Your task to perform on an android device: toggle priority inbox in the gmail app Image 0: 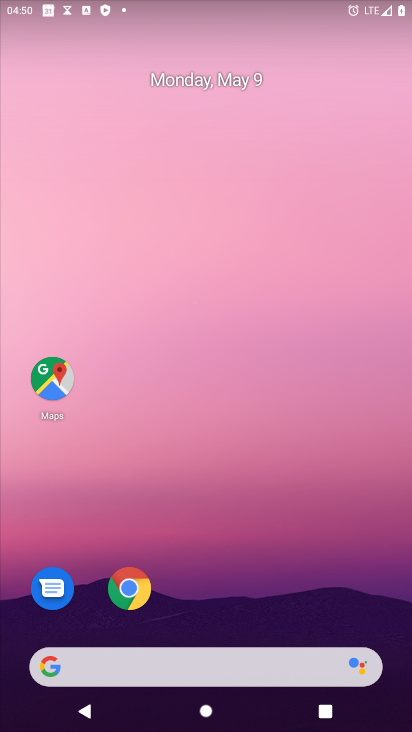
Step 0: drag from (255, 505) to (230, 142)
Your task to perform on an android device: toggle priority inbox in the gmail app Image 1: 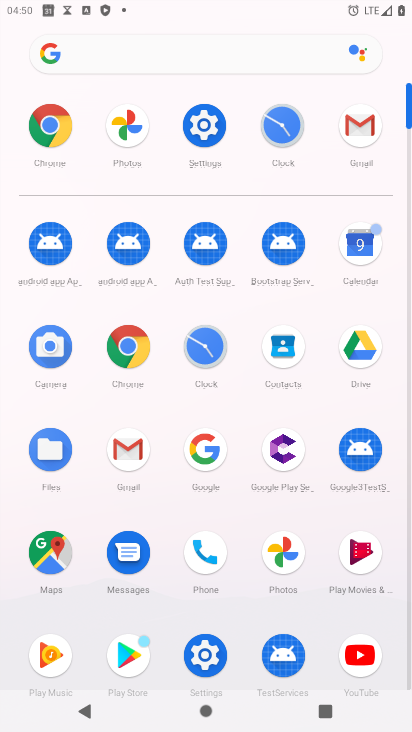
Step 1: click (358, 137)
Your task to perform on an android device: toggle priority inbox in the gmail app Image 2: 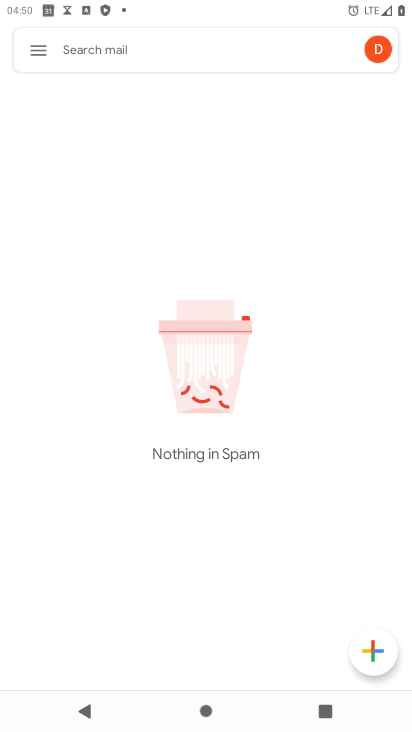
Step 2: click (29, 34)
Your task to perform on an android device: toggle priority inbox in the gmail app Image 3: 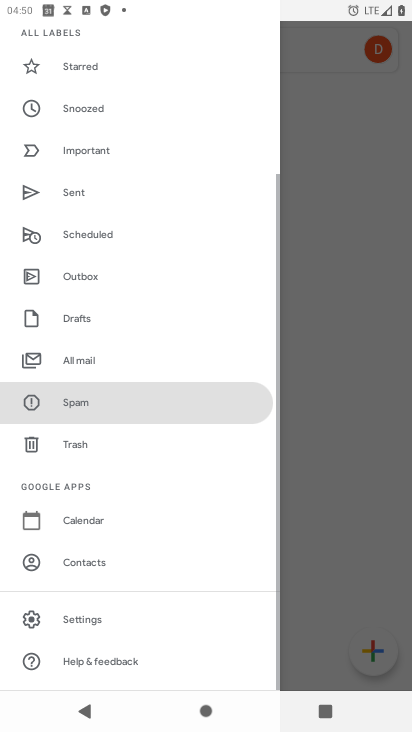
Step 3: click (99, 611)
Your task to perform on an android device: toggle priority inbox in the gmail app Image 4: 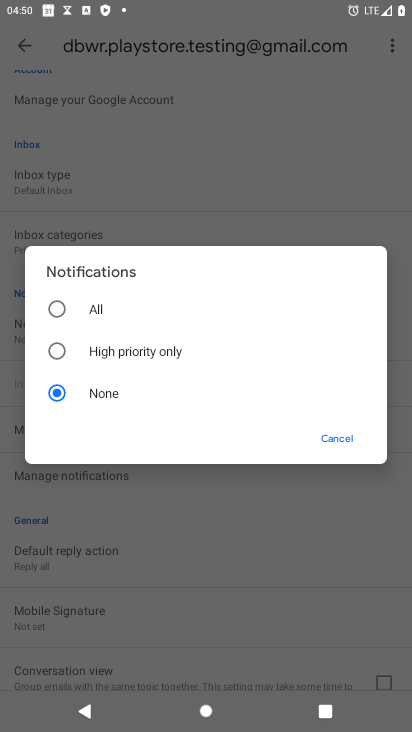
Step 4: click (340, 438)
Your task to perform on an android device: toggle priority inbox in the gmail app Image 5: 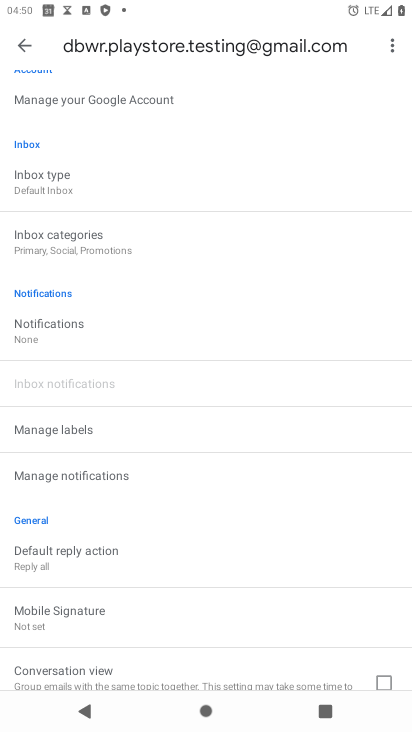
Step 5: click (90, 185)
Your task to perform on an android device: toggle priority inbox in the gmail app Image 6: 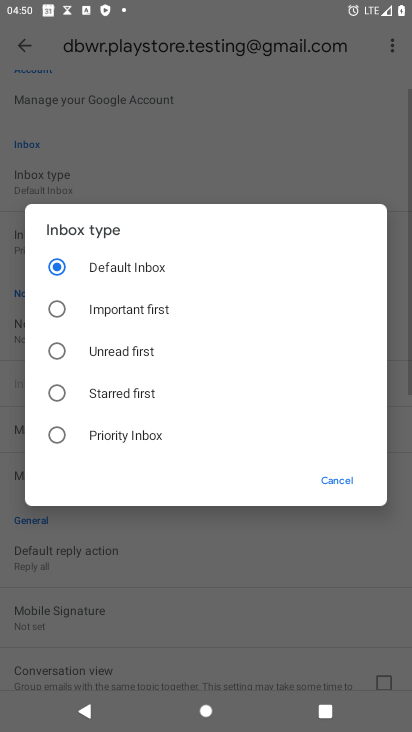
Step 6: click (108, 432)
Your task to perform on an android device: toggle priority inbox in the gmail app Image 7: 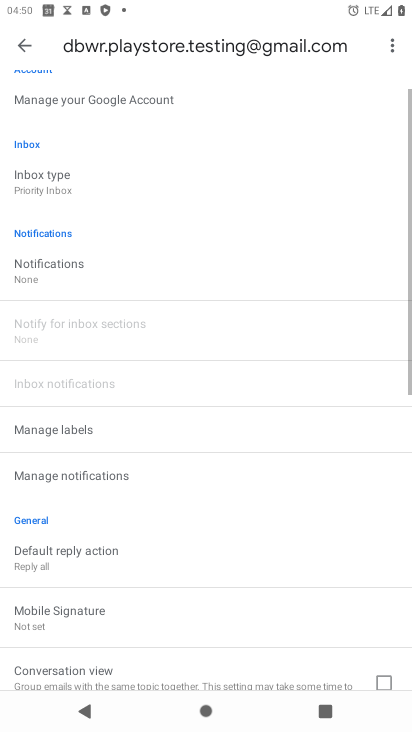
Step 7: task complete